Your task to perform on an android device: set default search engine in the chrome app Image 0: 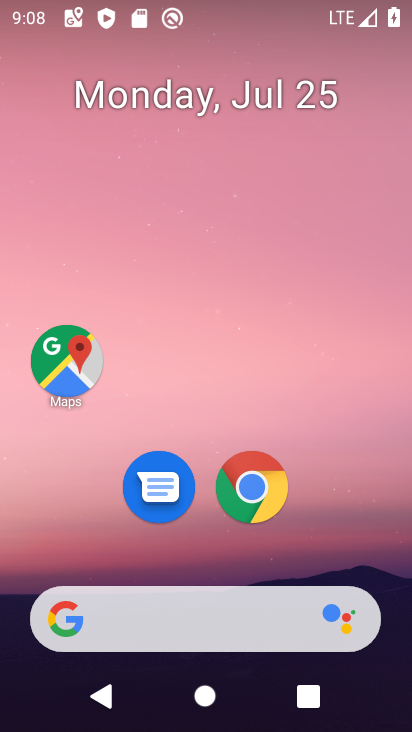
Step 0: click (256, 494)
Your task to perform on an android device: set default search engine in the chrome app Image 1: 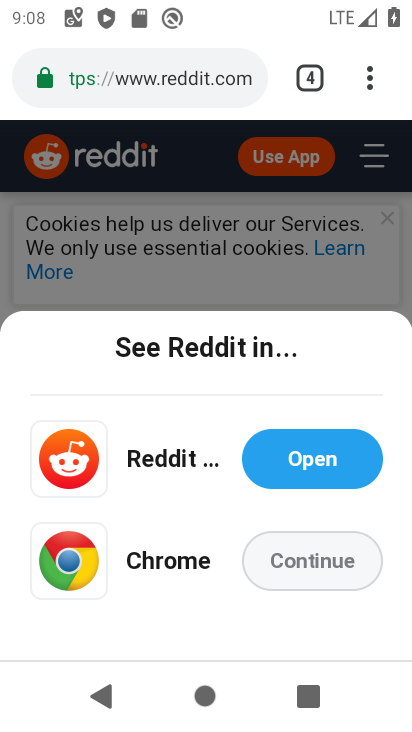
Step 1: drag from (372, 69) to (107, 549)
Your task to perform on an android device: set default search engine in the chrome app Image 2: 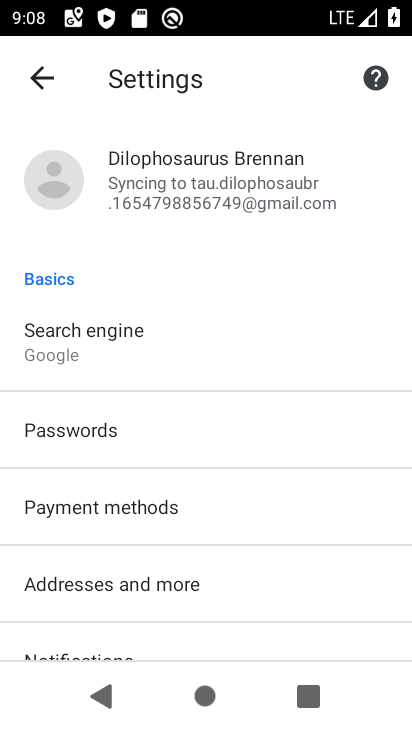
Step 2: click (91, 336)
Your task to perform on an android device: set default search engine in the chrome app Image 3: 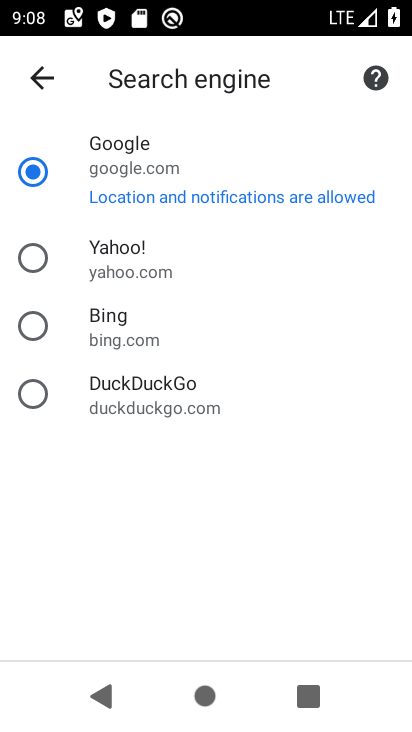
Step 3: click (43, 249)
Your task to perform on an android device: set default search engine in the chrome app Image 4: 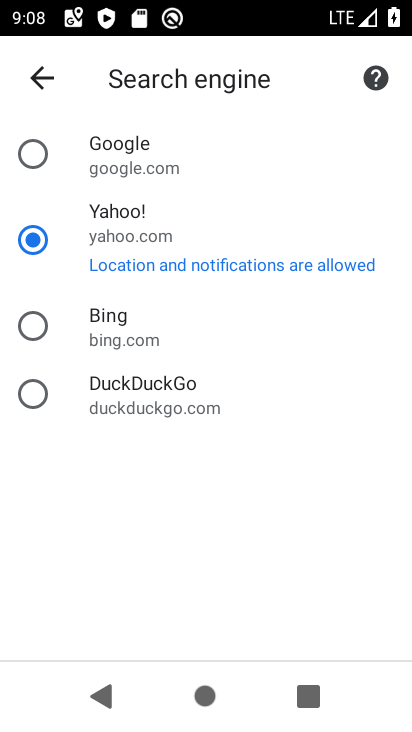
Step 4: task complete